Your task to perform on an android device: Open calendar and show me the third week of next month Image 0: 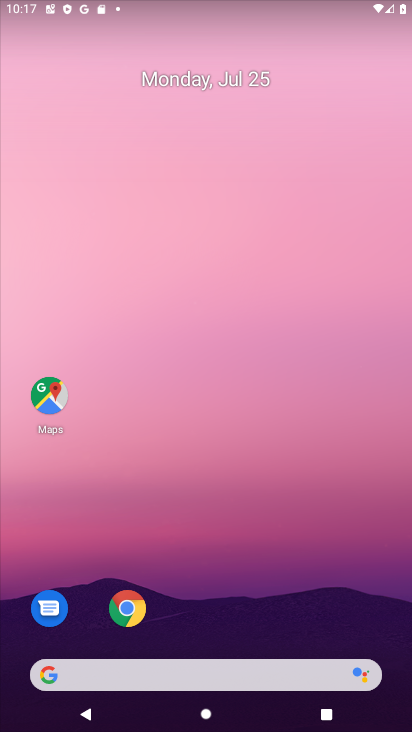
Step 0: drag from (215, 551) to (278, 109)
Your task to perform on an android device: Open calendar and show me the third week of next month Image 1: 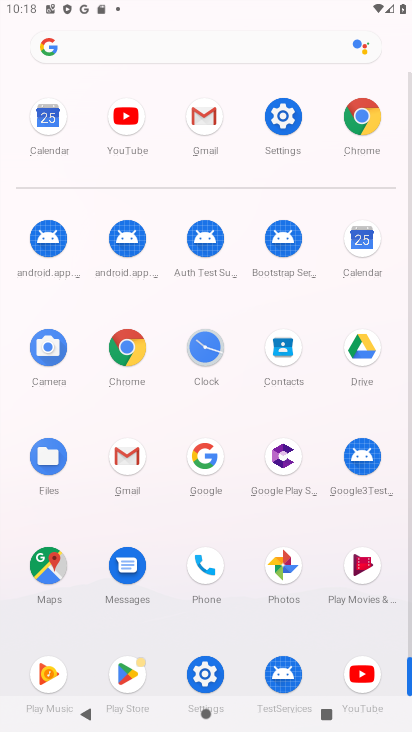
Step 1: click (357, 257)
Your task to perform on an android device: Open calendar and show me the third week of next month Image 2: 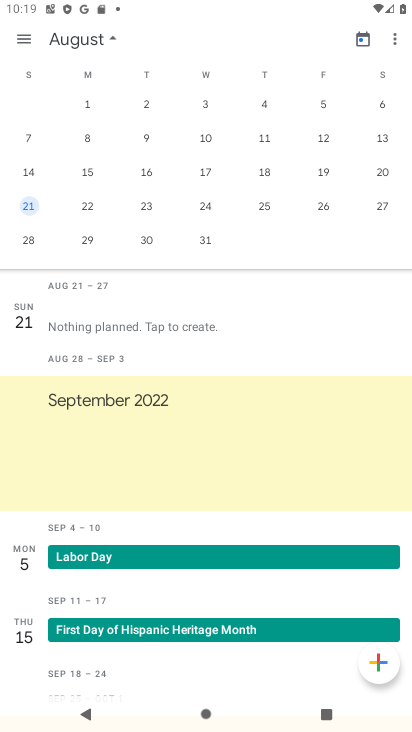
Step 2: click (32, 169)
Your task to perform on an android device: Open calendar and show me the third week of next month Image 3: 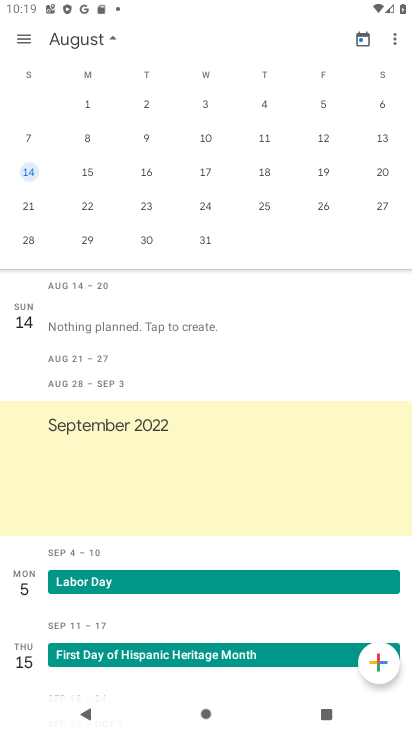
Step 3: task complete